Your task to perform on an android device: Show me the best rated coffee table on Ikea Image 0: 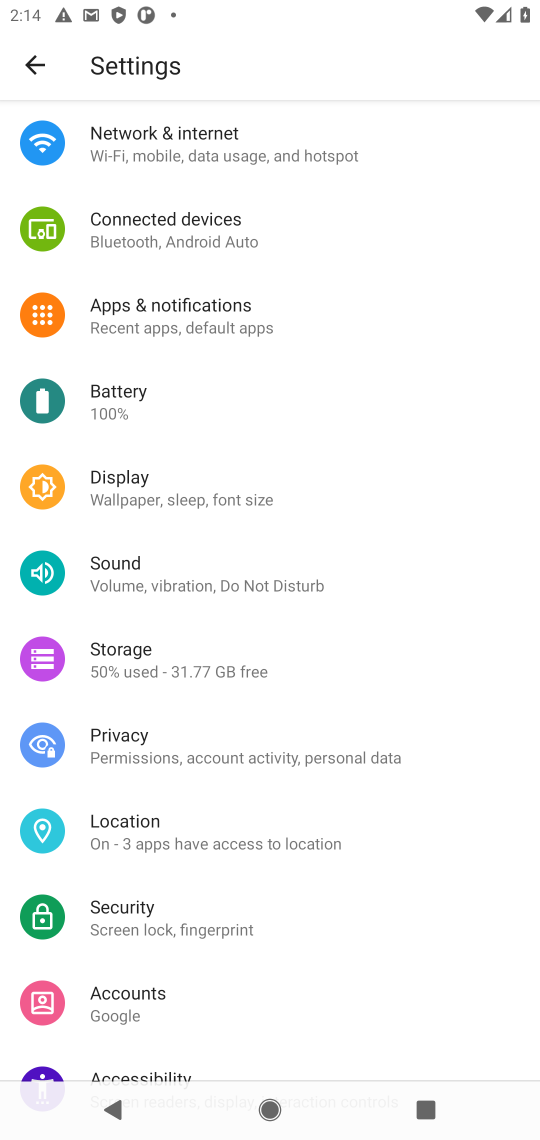
Step 0: press home button
Your task to perform on an android device: Show me the best rated coffee table on Ikea Image 1: 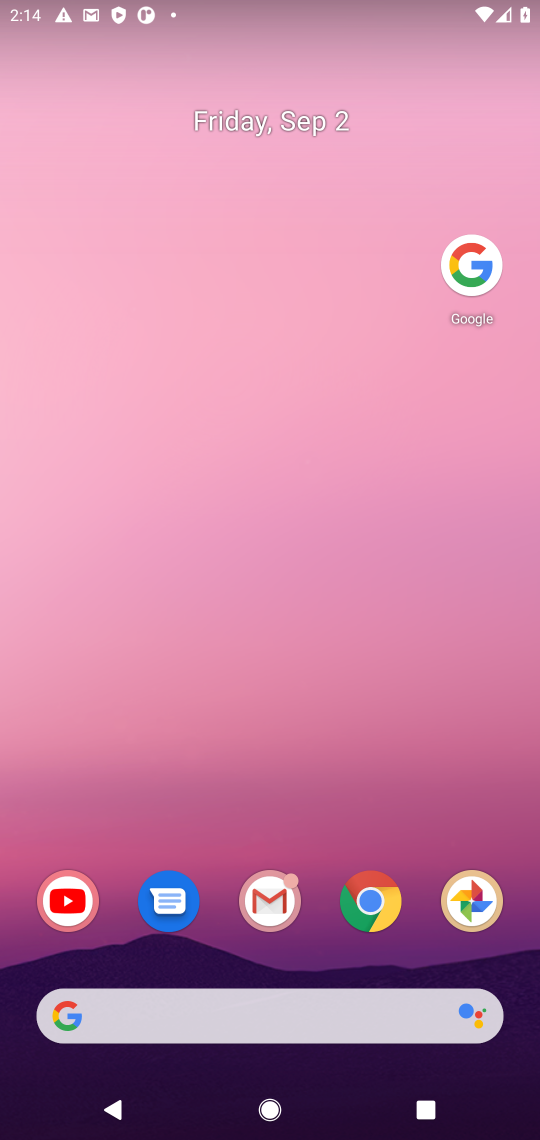
Step 1: click (479, 251)
Your task to perform on an android device: Show me the best rated coffee table on Ikea Image 2: 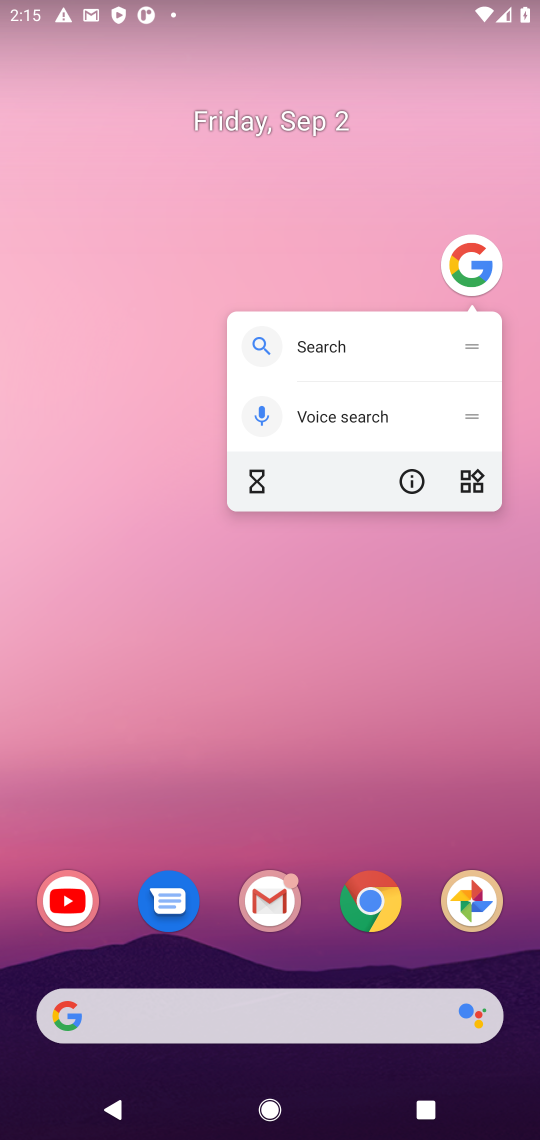
Step 2: click (463, 260)
Your task to perform on an android device: Show me the best rated coffee table on Ikea Image 3: 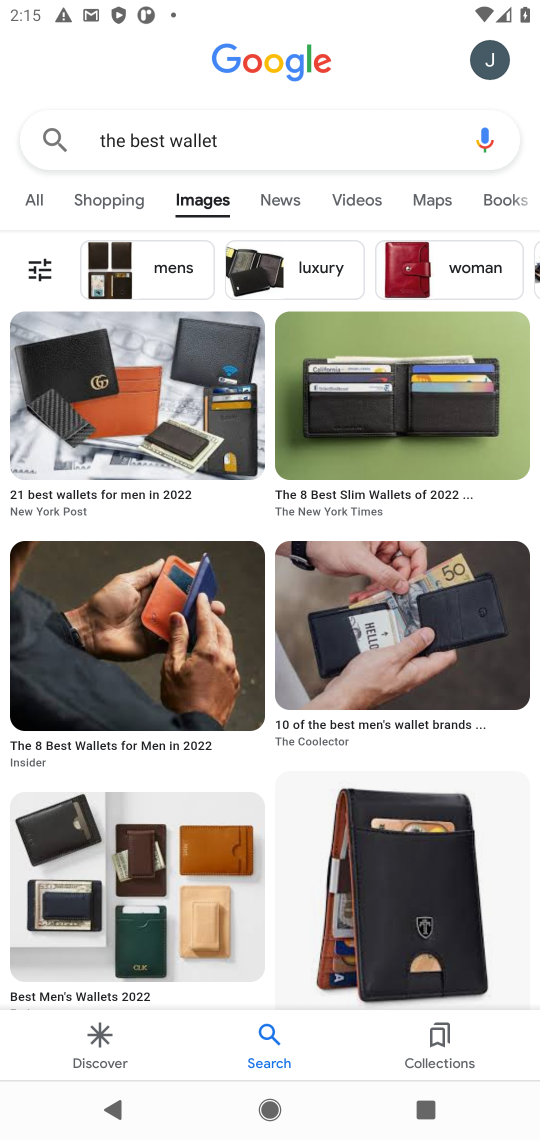
Step 3: click (322, 135)
Your task to perform on an android device: Show me the best rated coffee table on Ikea Image 4: 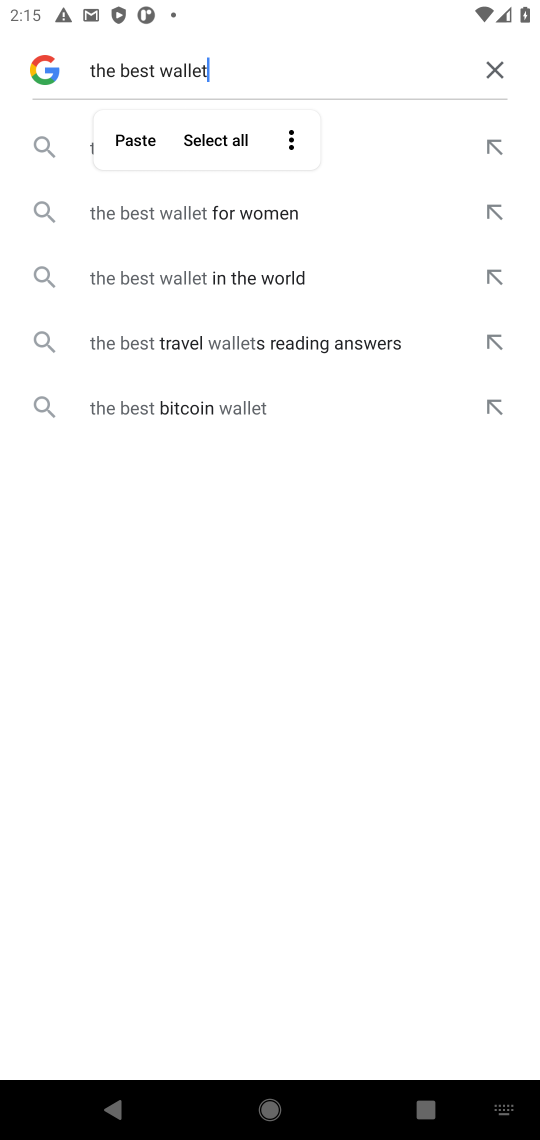
Step 4: click (474, 68)
Your task to perform on an android device: Show me the best rated coffee table on Ikea Image 5: 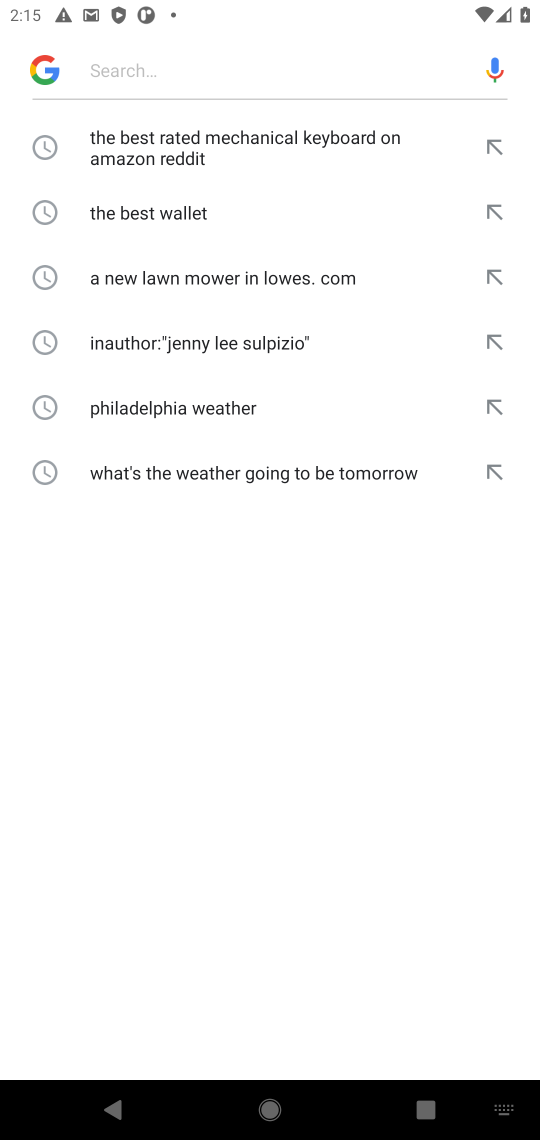
Step 5: click (269, 68)
Your task to perform on an android device: Show me the best rated coffee table on Ikea Image 6: 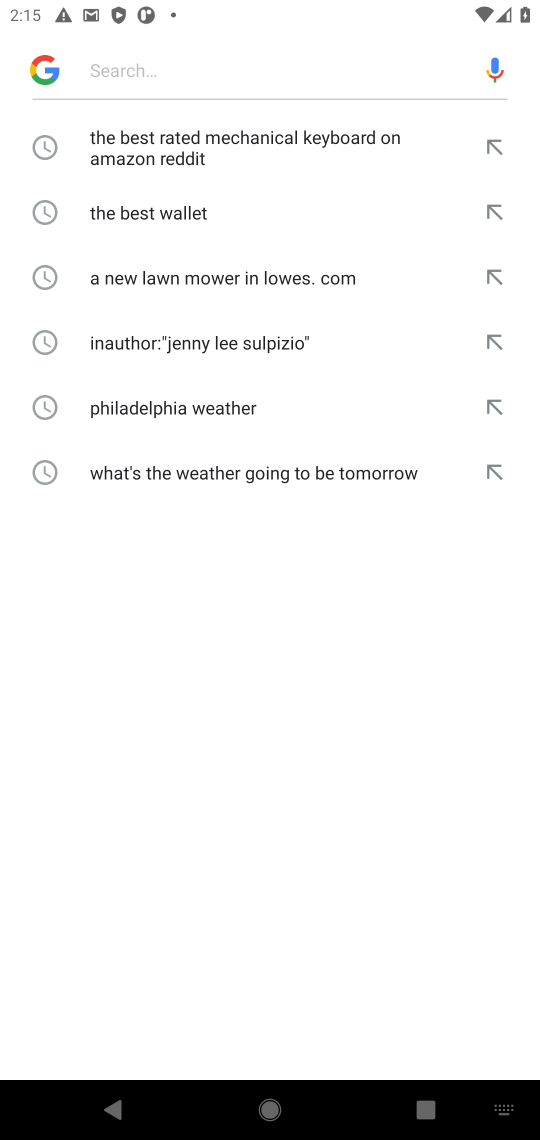
Step 6: type "the best rated coffee table on Ikea "
Your task to perform on an android device: Show me the best rated coffee table on Ikea Image 7: 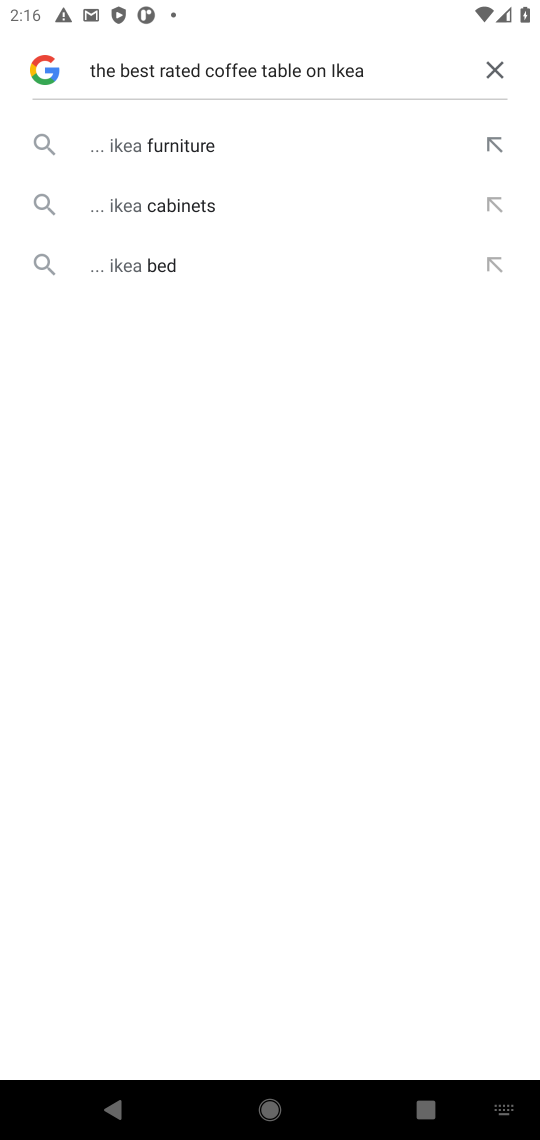
Step 7: click (168, 153)
Your task to perform on an android device: Show me the best rated coffee table on Ikea Image 8: 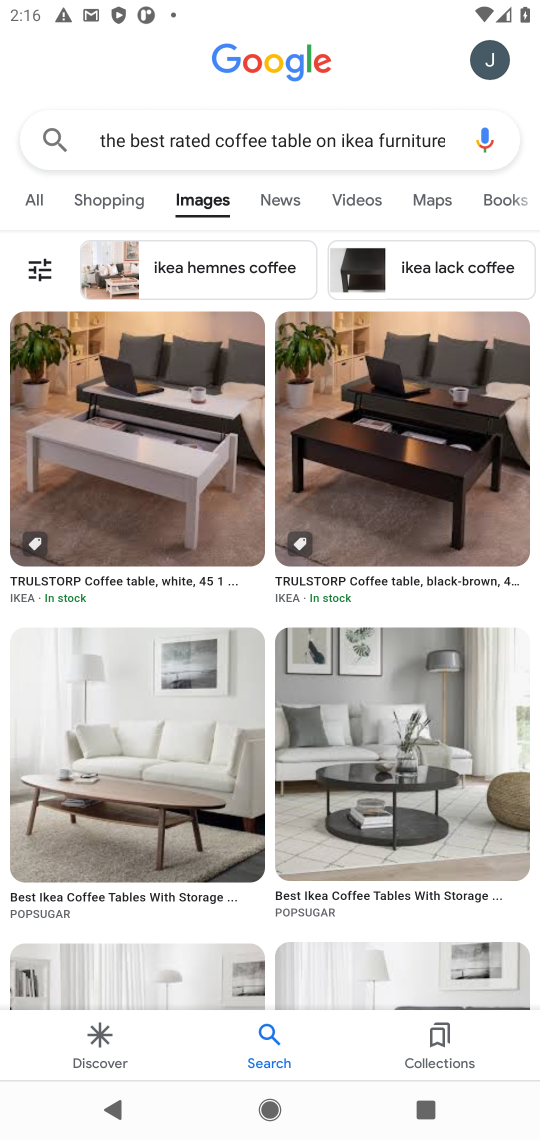
Step 8: click (23, 201)
Your task to perform on an android device: Show me the best rated coffee table on Ikea Image 9: 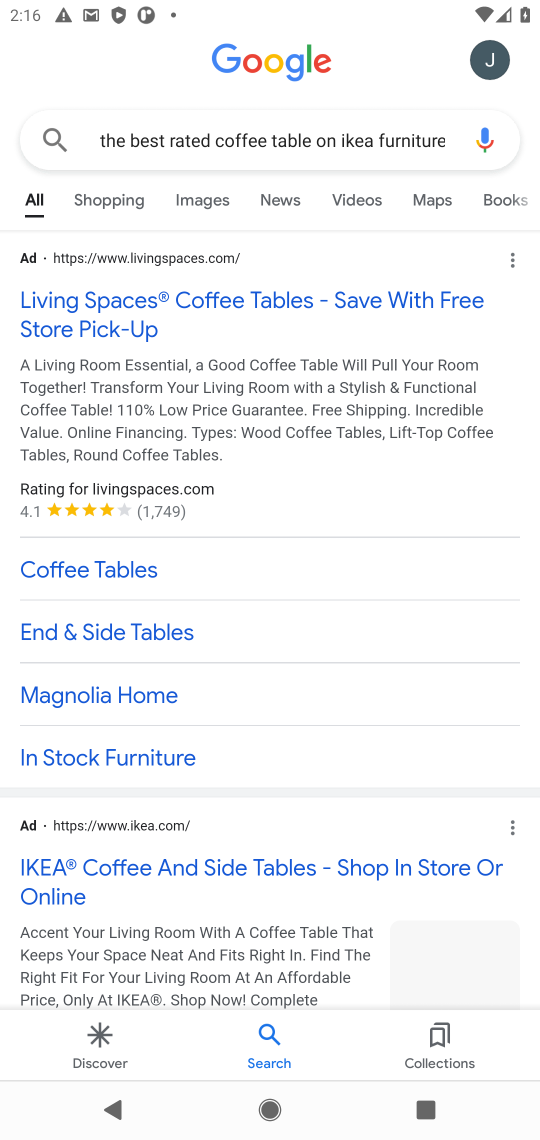
Step 9: click (98, 867)
Your task to perform on an android device: Show me the best rated coffee table on Ikea Image 10: 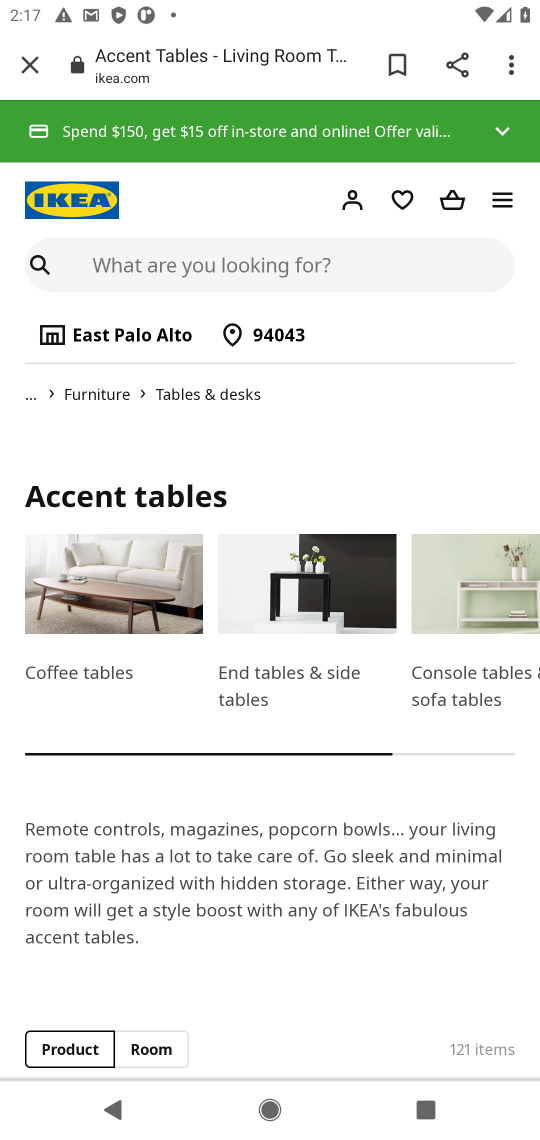
Step 10: task complete